Your task to perform on an android device: open chrome privacy settings Image 0: 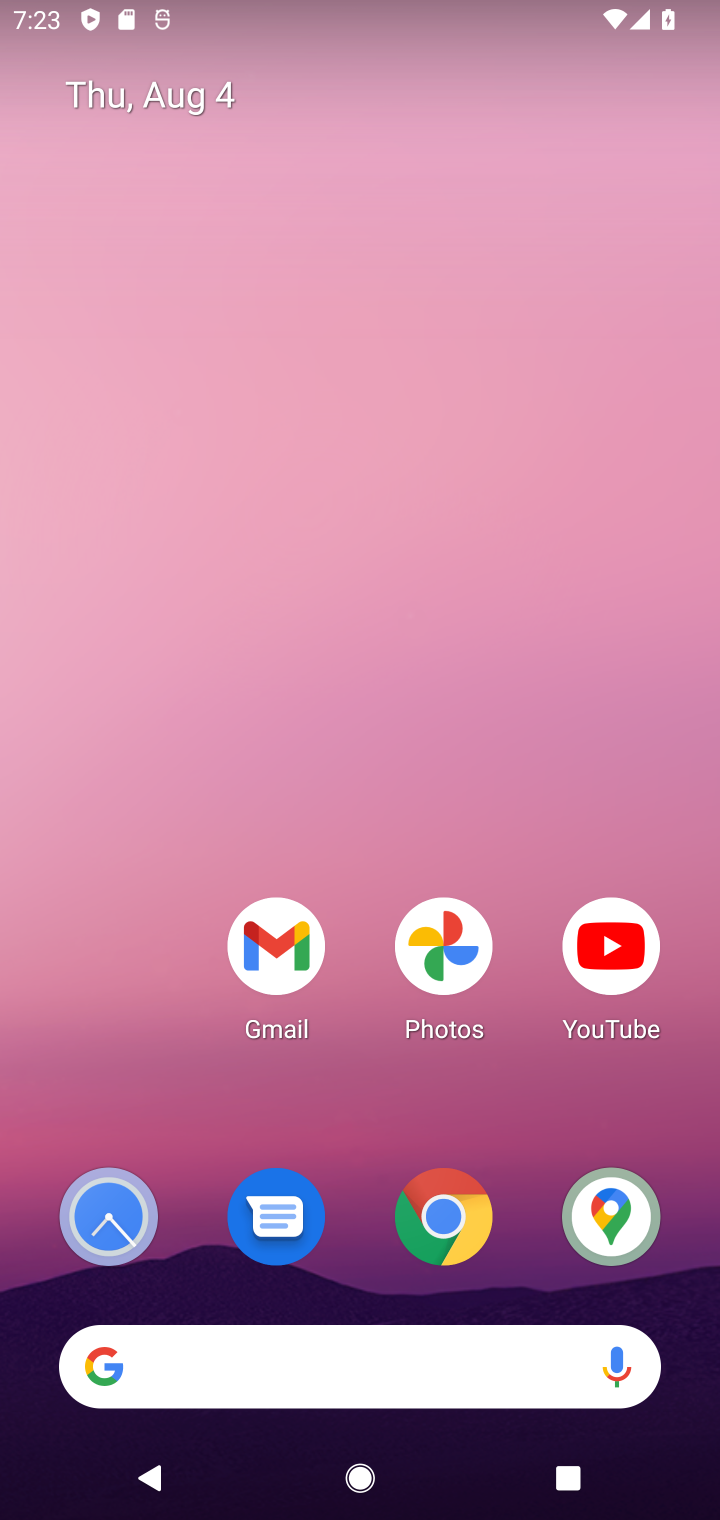
Step 0: click (448, 1204)
Your task to perform on an android device: open chrome privacy settings Image 1: 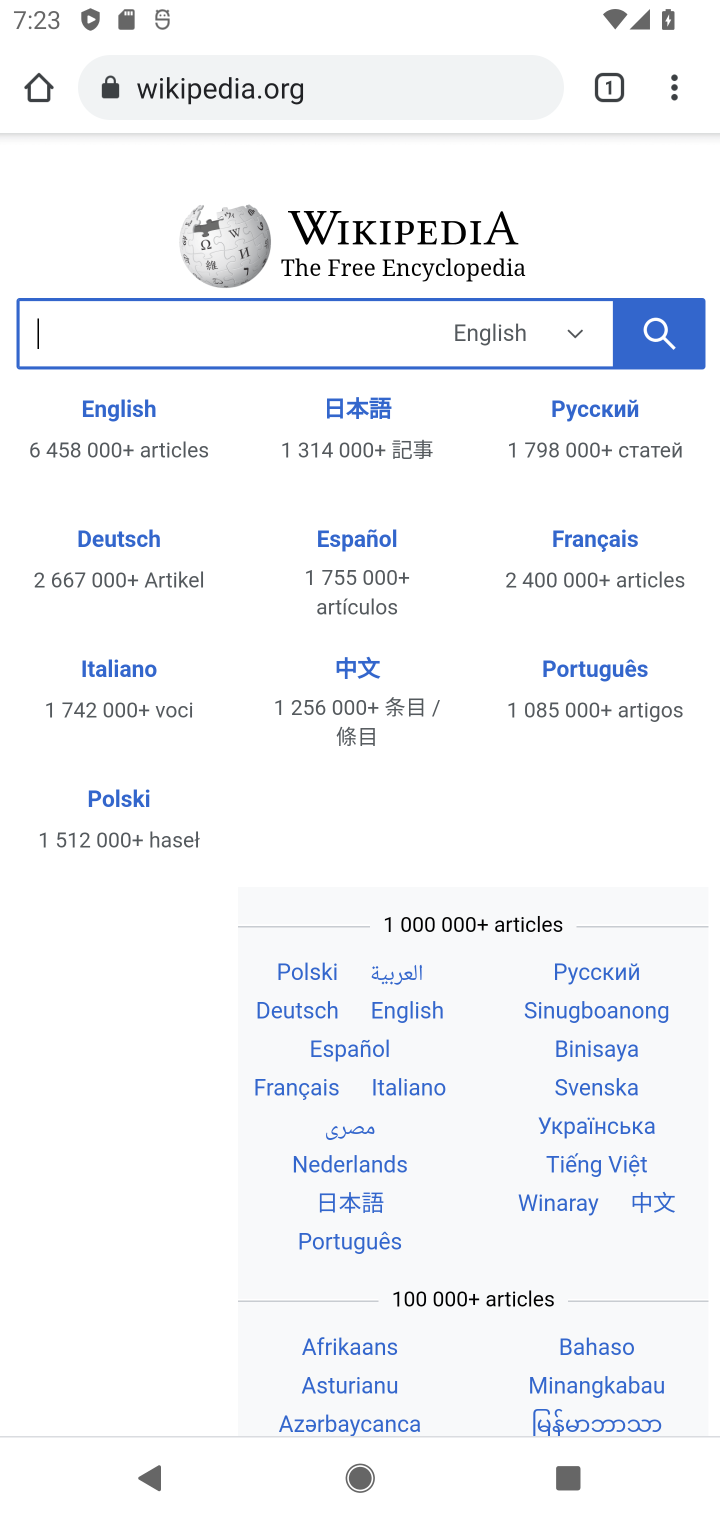
Step 1: click (686, 94)
Your task to perform on an android device: open chrome privacy settings Image 2: 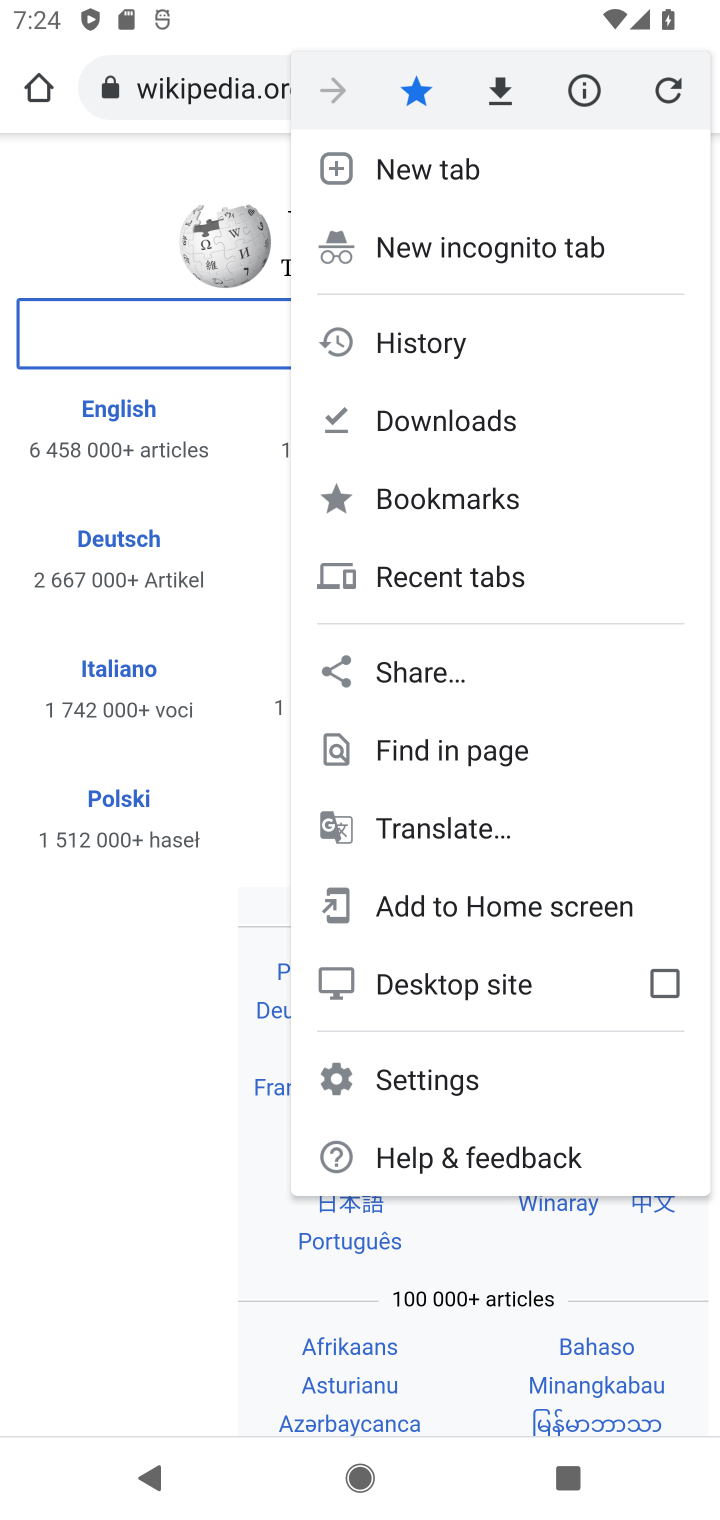
Step 2: click (436, 1083)
Your task to perform on an android device: open chrome privacy settings Image 3: 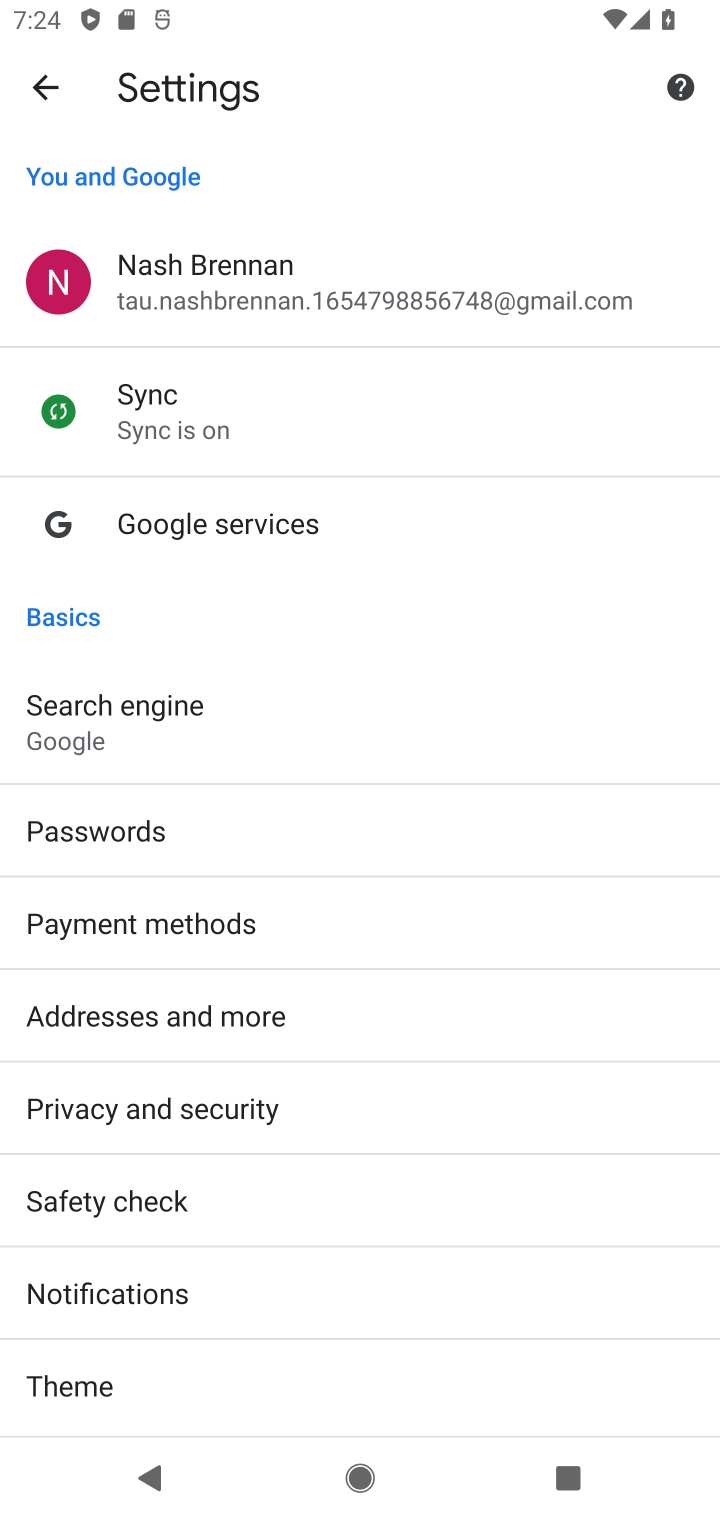
Step 3: drag from (288, 1300) to (265, 447)
Your task to perform on an android device: open chrome privacy settings Image 4: 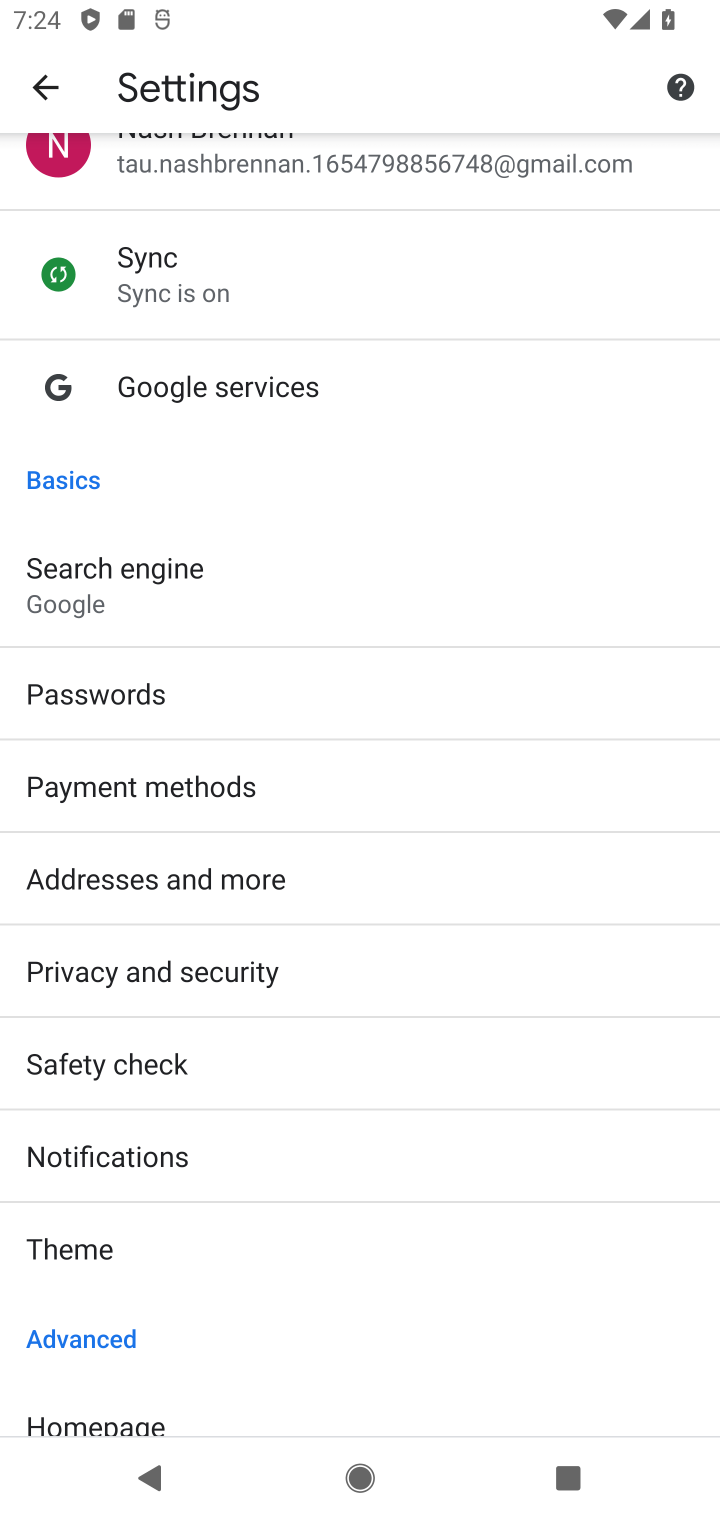
Step 4: drag from (219, 1273) to (233, 490)
Your task to perform on an android device: open chrome privacy settings Image 5: 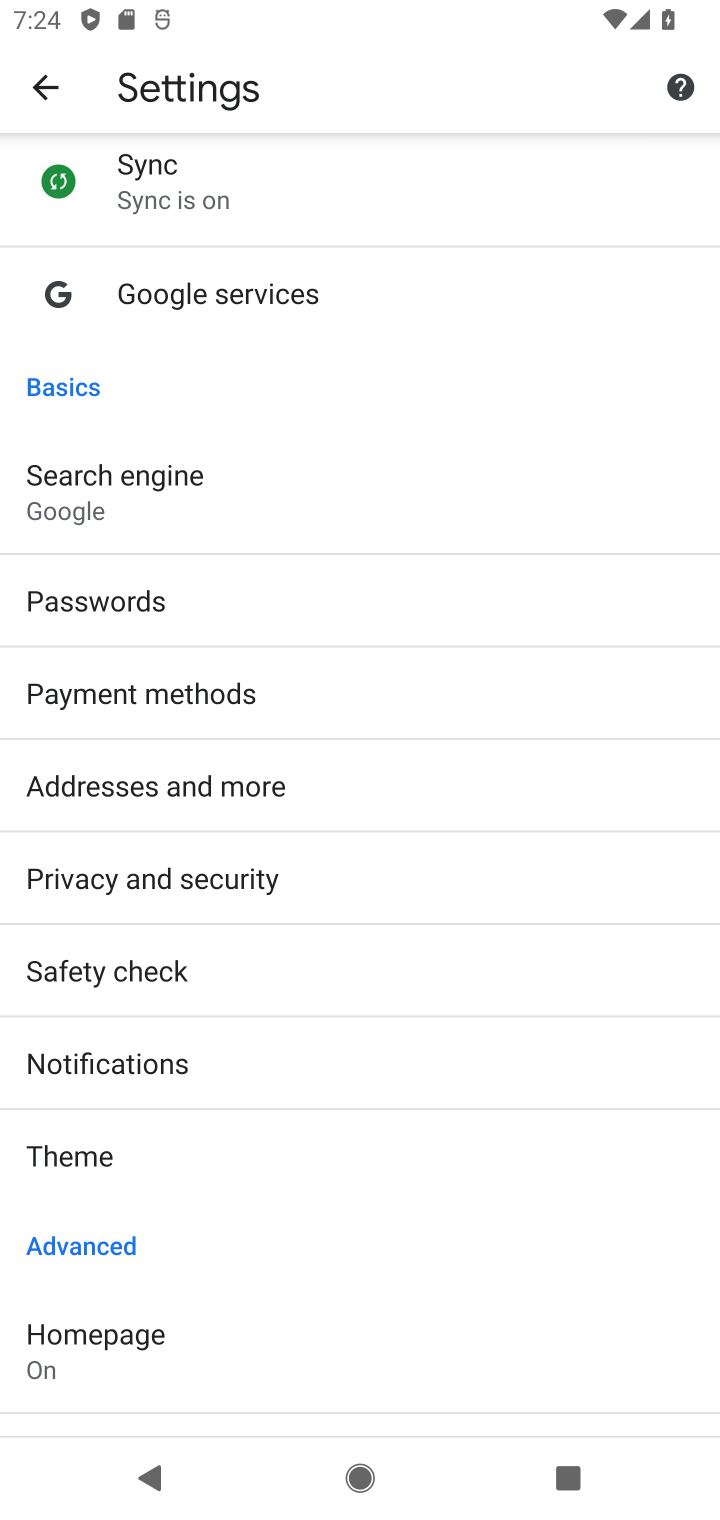
Step 5: click (452, 879)
Your task to perform on an android device: open chrome privacy settings Image 6: 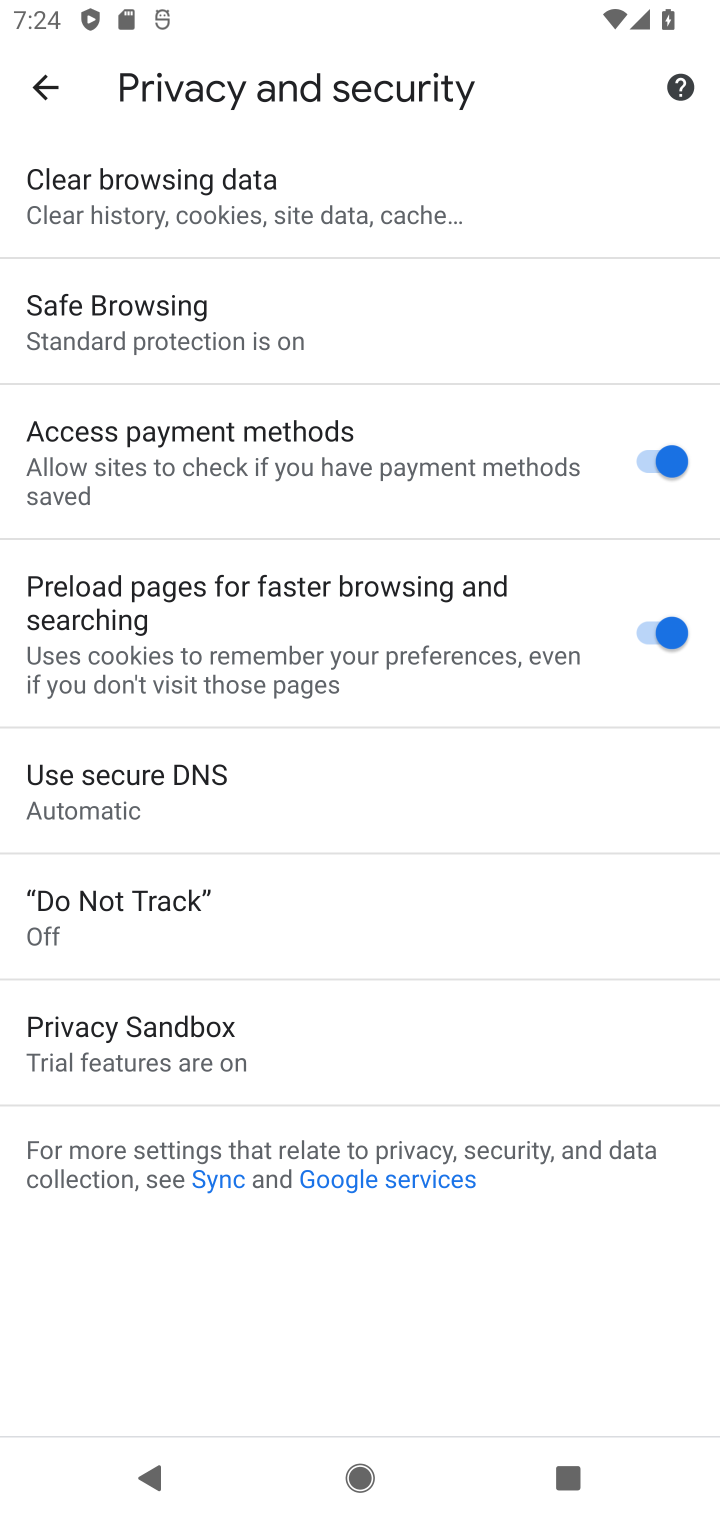
Step 6: task complete